Your task to perform on an android device: turn on priority inbox in the gmail app Image 0: 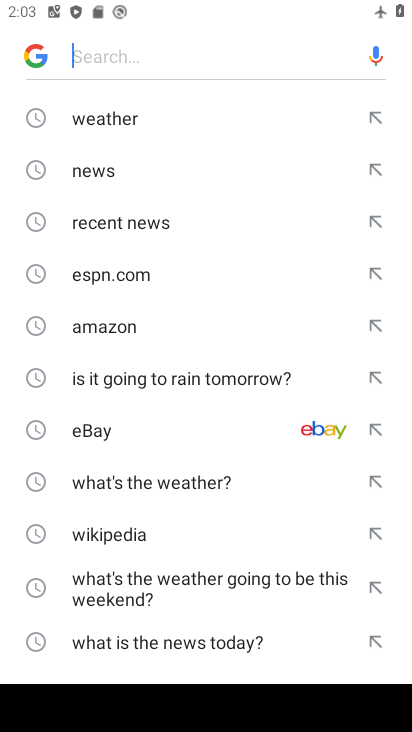
Step 0: press home button
Your task to perform on an android device: turn on priority inbox in the gmail app Image 1: 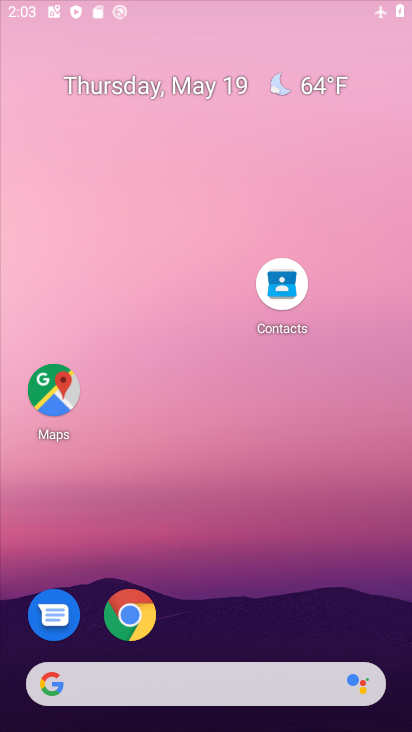
Step 1: drag from (296, 691) to (280, 257)
Your task to perform on an android device: turn on priority inbox in the gmail app Image 2: 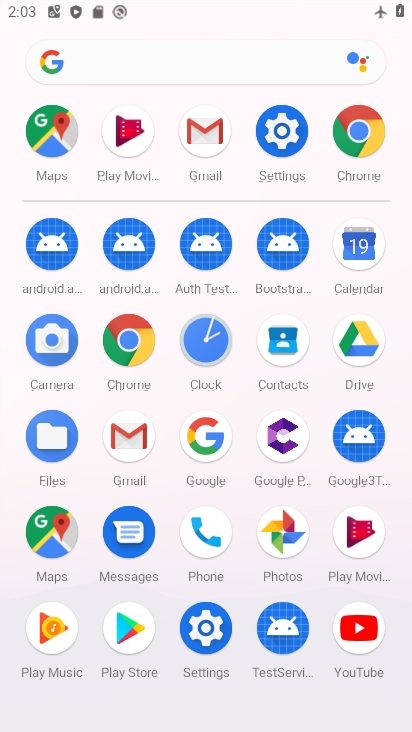
Step 2: click (127, 427)
Your task to perform on an android device: turn on priority inbox in the gmail app Image 3: 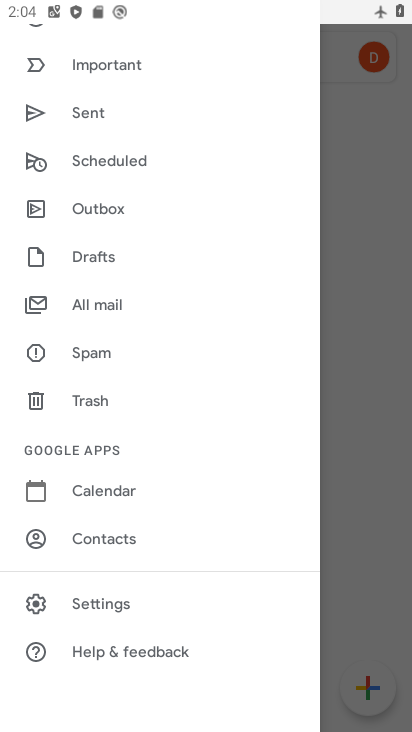
Step 3: click (146, 603)
Your task to perform on an android device: turn on priority inbox in the gmail app Image 4: 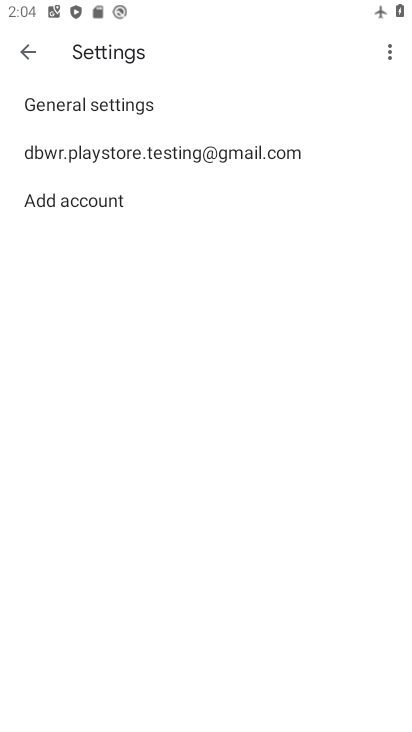
Step 4: click (130, 148)
Your task to perform on an android device: turn on priority inbox in the gmail app Image 5: 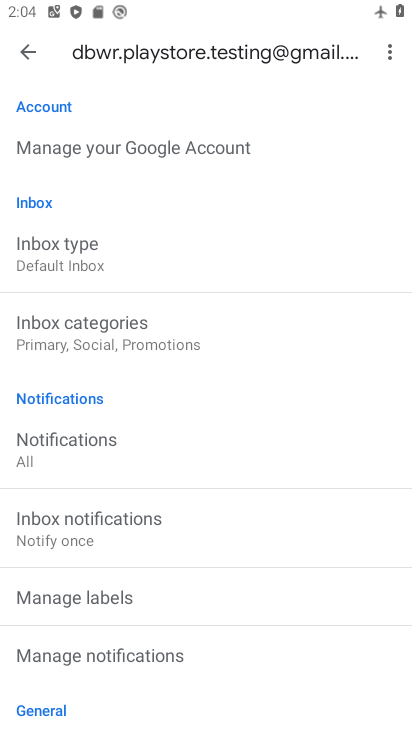
Step 5: click (96, 271)
Your task to perform on an android device: turn on priority inbox in the gmail app Image 6: 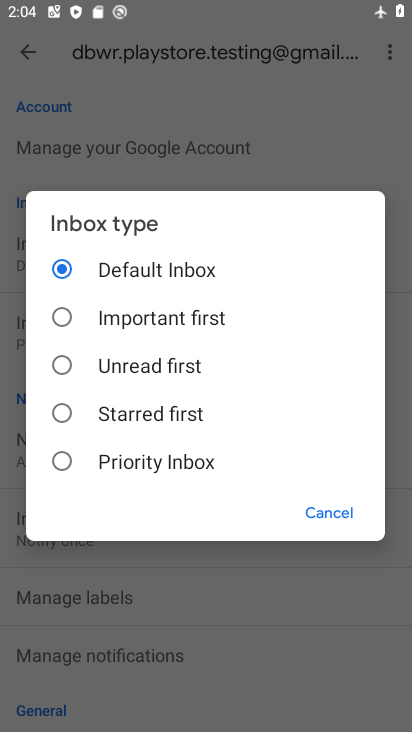
Step 6: click (71, 462)
Your task to perform on an android device: turn on priority inbox in the gmail app Image 7: 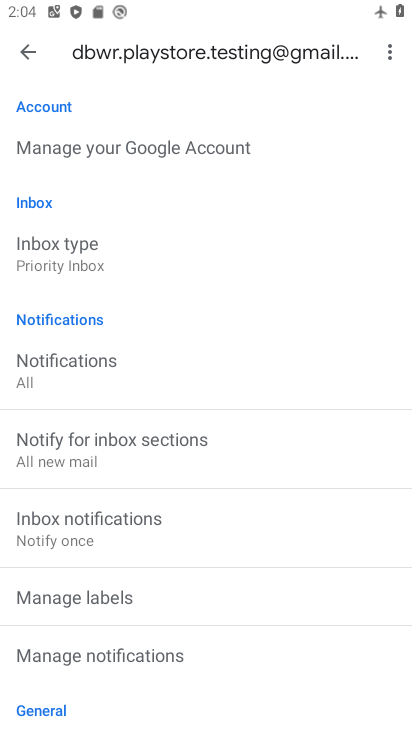
Step 7: task complete